Your task to perform on an android device: turn off translation in the chrome app Image 0: 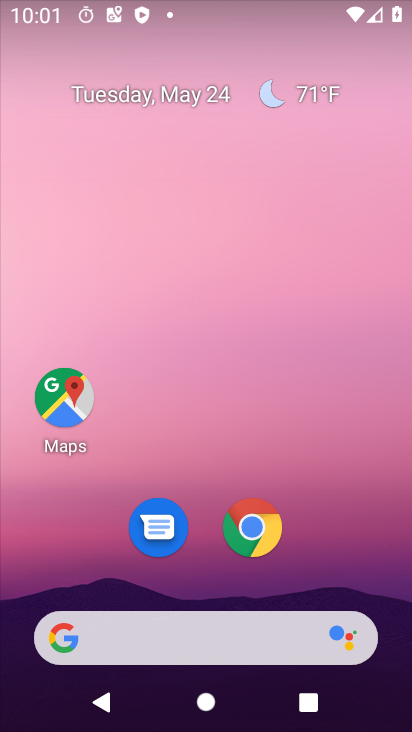
Step 0: click (251, 533)
Your task to perform on an android device: turn off translation in the chrome app Image 1: 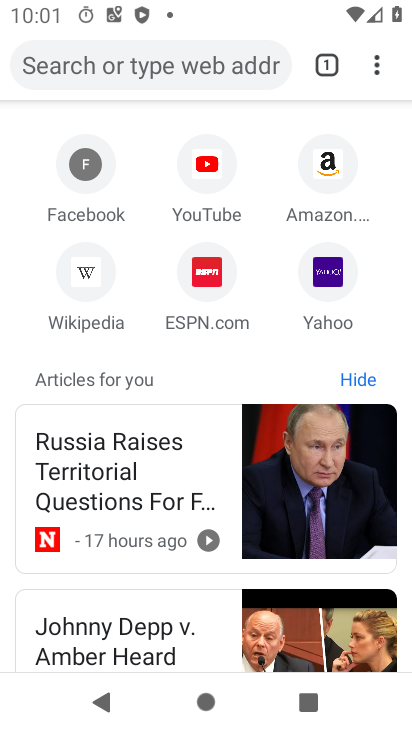
Step 1: click (375, 64)
Your task to perform on an android device: turn off translation in the chrome app Image 2: 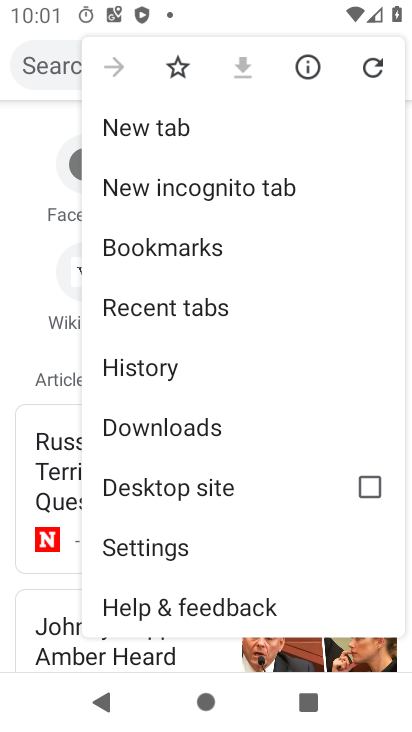
Step 2: click (212, 561)
Your task to perform on an android device: turn off translation in the chrome app Image 3: 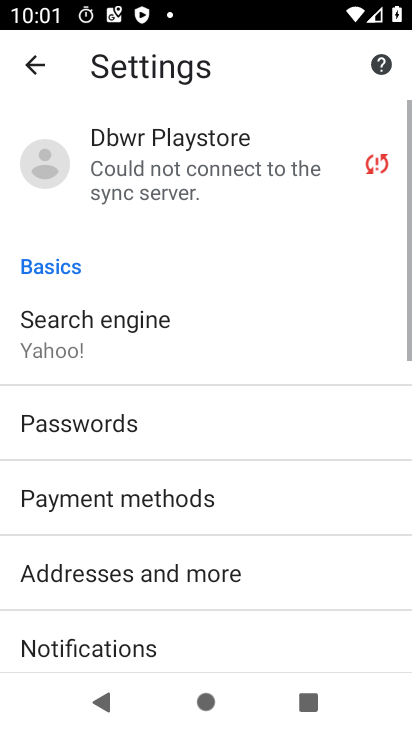
Step 3: drag from (242, 604) to (270, 109)
Your task to perform on an android device: turn off translation in the chrome app Image 4: 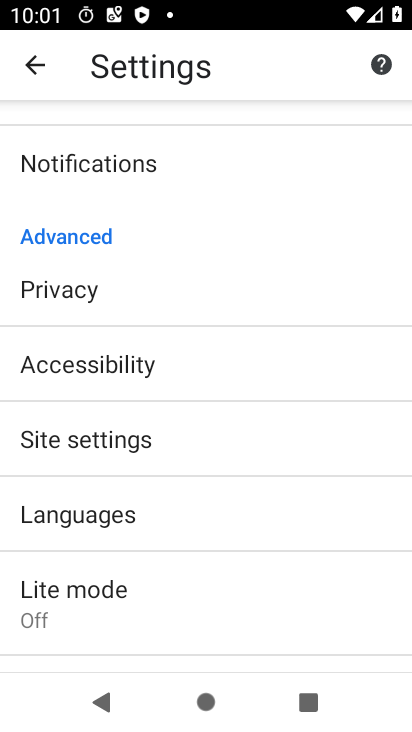
Step 4: click (138, 508)
Your task to perform on an android device: turn off translation in the chrome app Image 5: 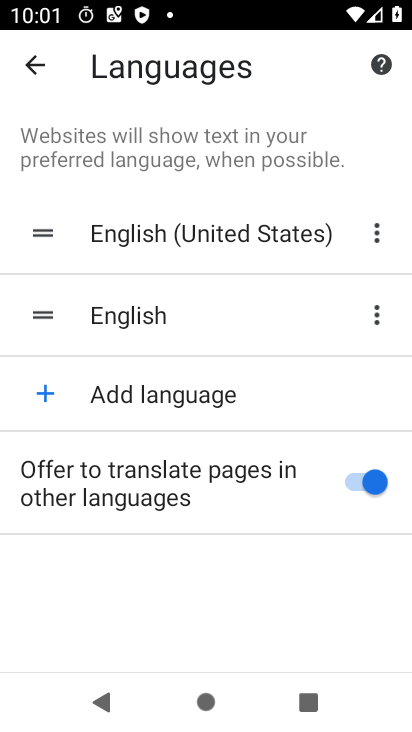
Step 5: click (362, 481)
Your task to perform on an android device: turn off translation in the chrome app Image 6: 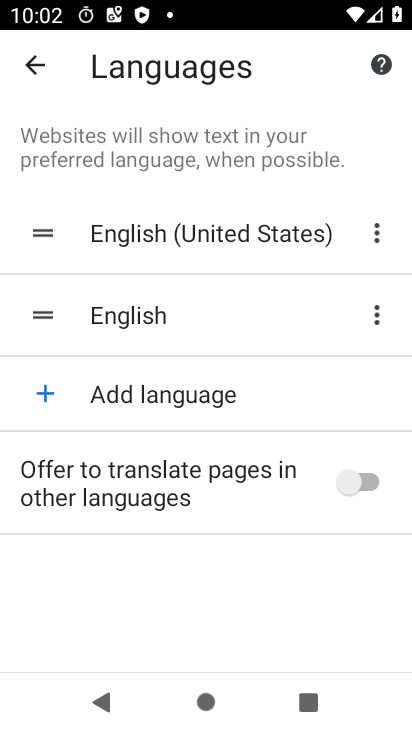
Step 6: task complete